Your task to perform on an android device: see creations saved in the google photos Image 0: 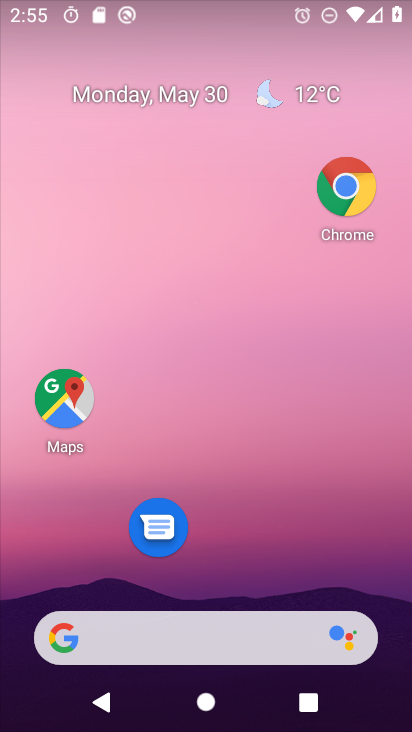
Step 0: drag from (196, 596) to (230, 191)
Your task to perform on an android device: see creations saved in the google photos Image 1: 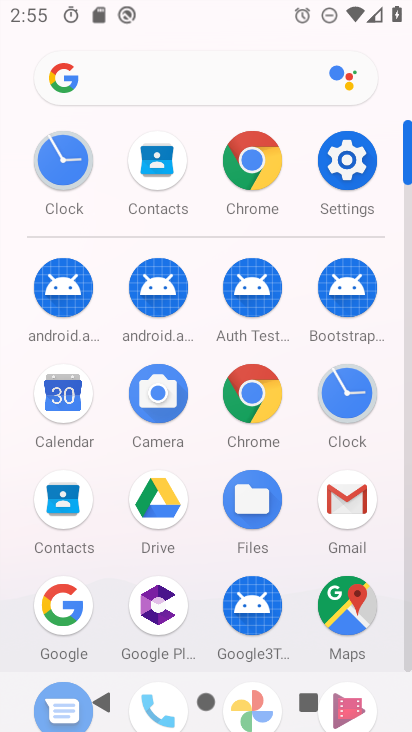
Step 1: drag from (196, 594) to (211, 289)
Your task to perform on an android device: see creations saved in the google photos Image 2: 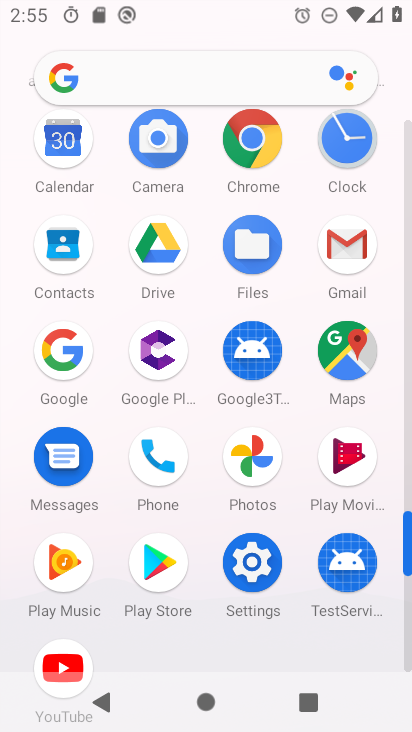
Step 2: click (234, 457)
Your task to perform on an android device: see creations saved in the google photos Image 3: 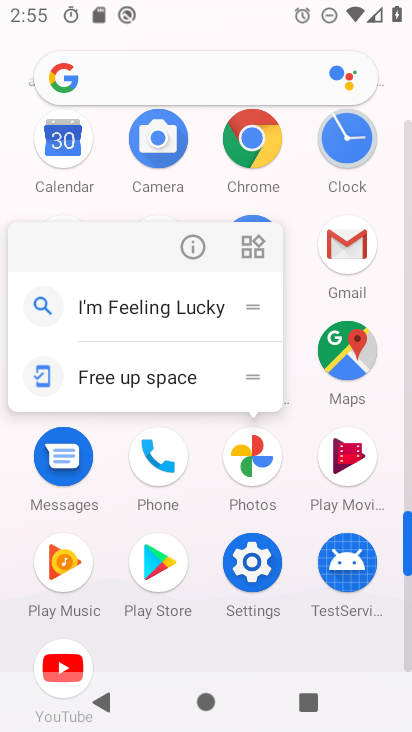
Step 3: click (200, 247)
Your task to perform on an android device: see creations saved in the google photos Image 4: 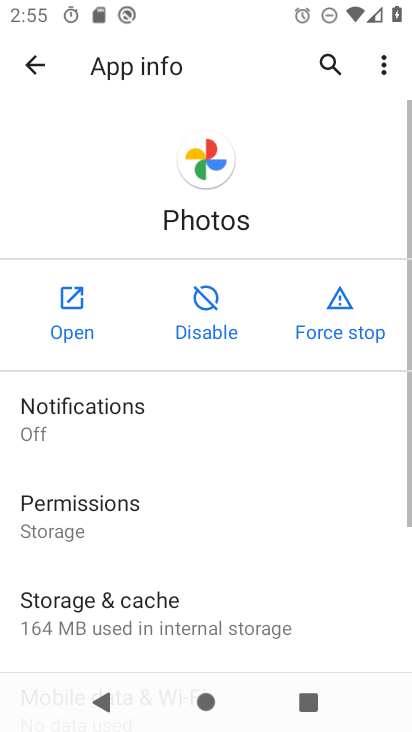
Step 4: click (102, 329)
Your task to perform on an android device: see creations saved in the google photos Image 5: 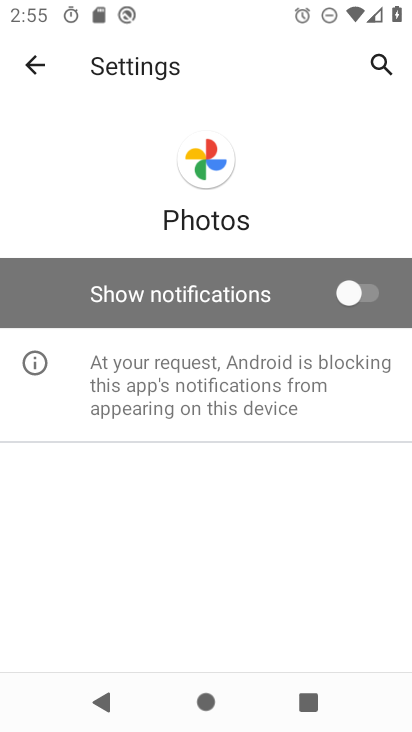
Step 5: click (35, 77)
Your task to perform on an android device: see creations saved in the google photos Image 6: 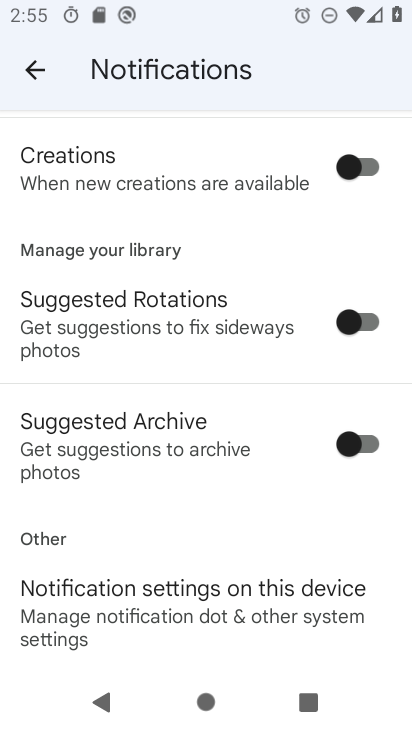
Step 6: drag from (129, 360) to (236, 727)
Your task to perform on an android device: see creations saved in the google photos Image 7: 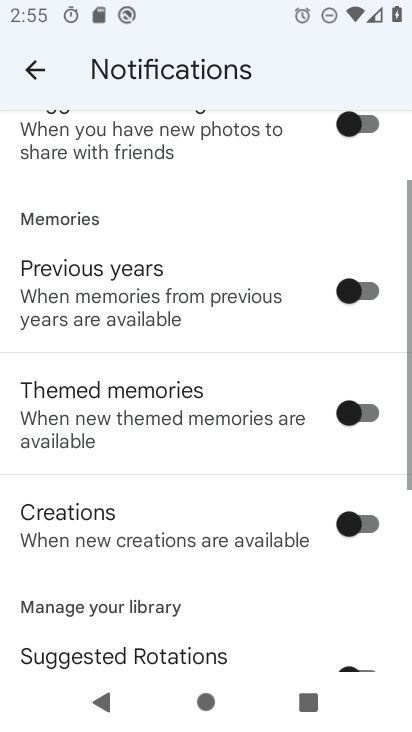
Step 7: click (25, 52)
Your task to perform on an android device: see creations saved in the google photos Image 8: 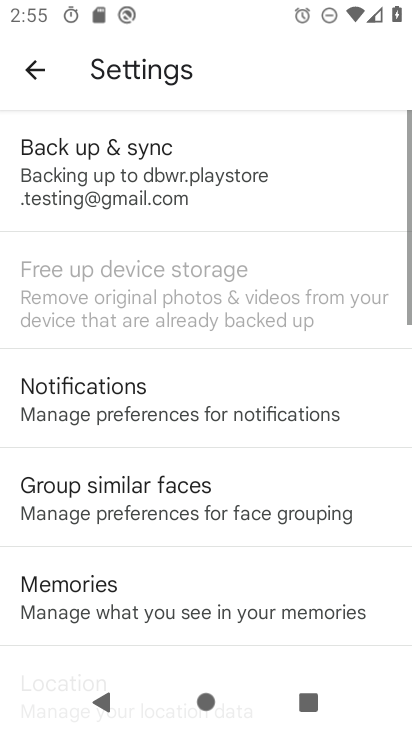
Step 8: click (22, 51)
Your task to perform on an android device: see creations saved in the google photos Image 9: 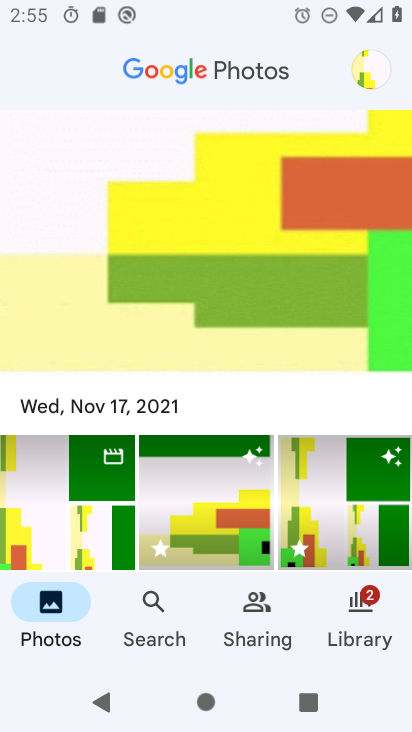
Step 9: click (155, 592)
Your task to perform on an android device: see creations saved in the google photos Image 10: 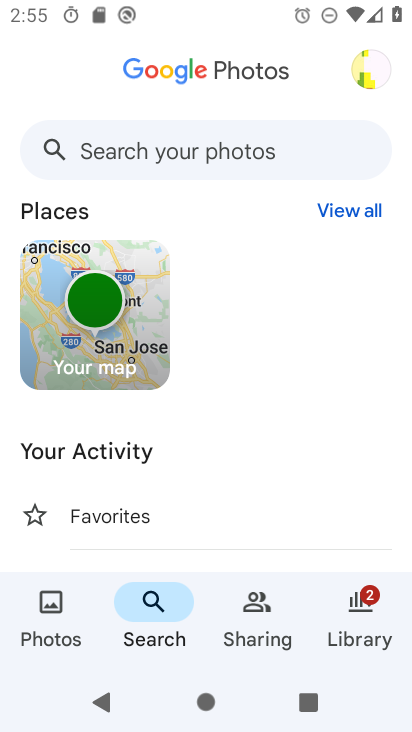
Step 10: drag from (202, 502) to (312, 34)
Your task to perform on an android device: see creations saved in the google photos Image 11: 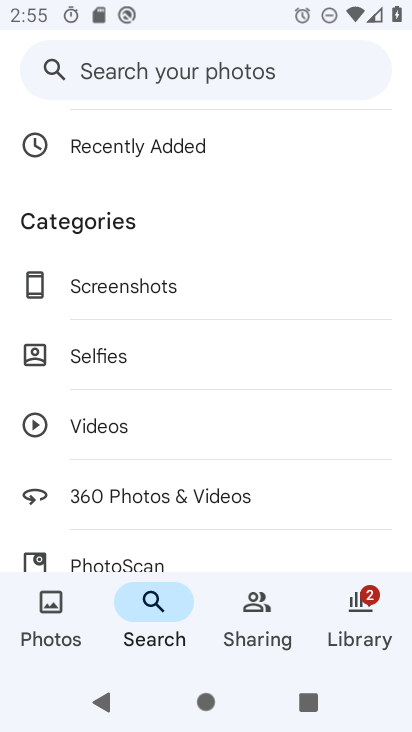
Step 11: drag from (148, 523) to (178, 312)
Your task to perform on an android device: see creations saved in the google photos Image 12: 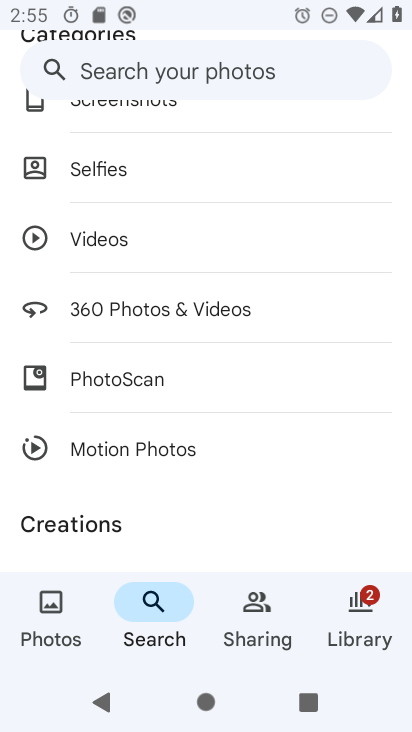
Step 12: drag from (105, 517) to (244, 158)
Your task to perform on an android device: see creations saved in the google photos Image 13: 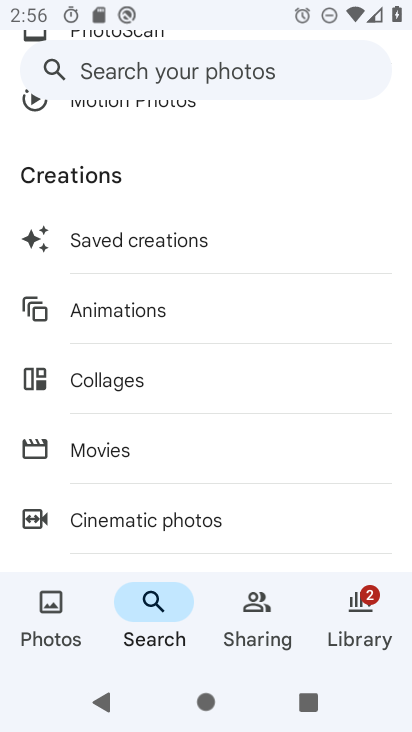
Step 13: drag from (145, 476) to (212, 212)
Your task to perform on an android device: see creations saved in the google photos Image 14: 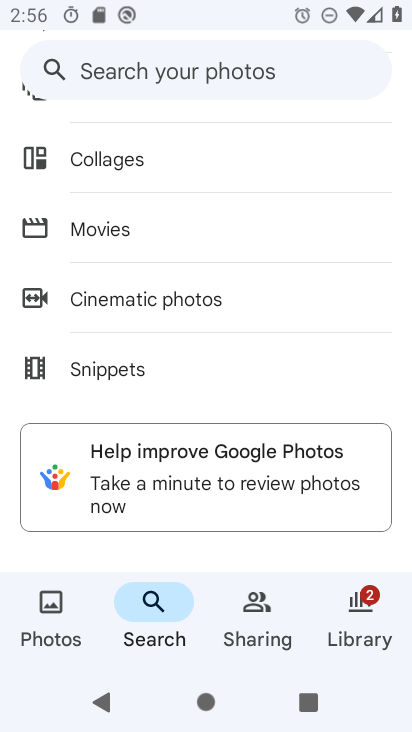
Step 14: drag from (173, 252) to (192, 545)
Your task to perform on an android device: see creations saved in the google photos Image 15: 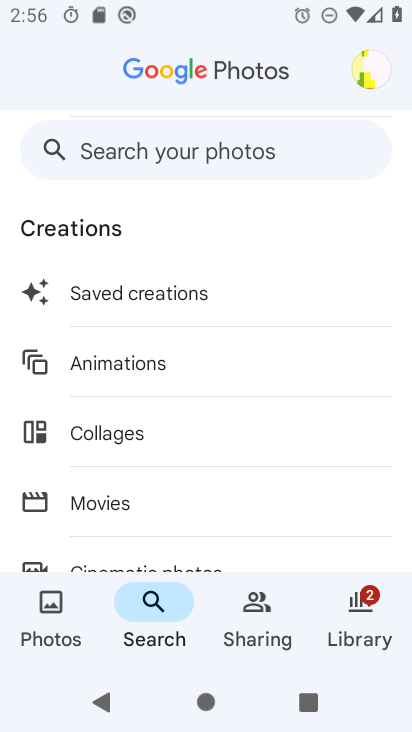
Step 15: click (132, 289)
Your task to perform on an android device: see creations saved in the google photos Image 16: 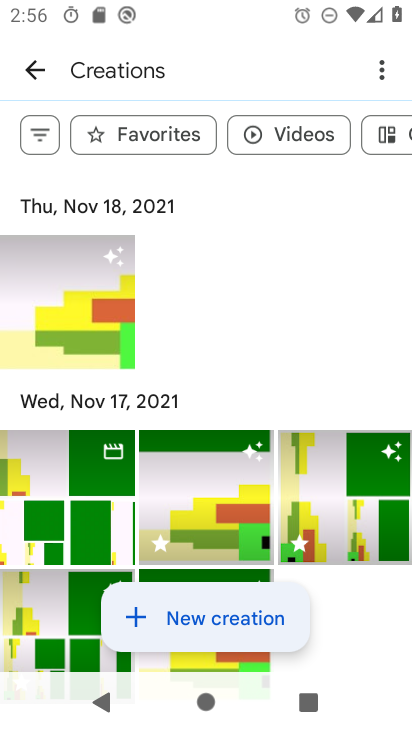
Step 16: click (65, 506)
Your task to perform on an android device: see creations saved in the google photos Image 17: 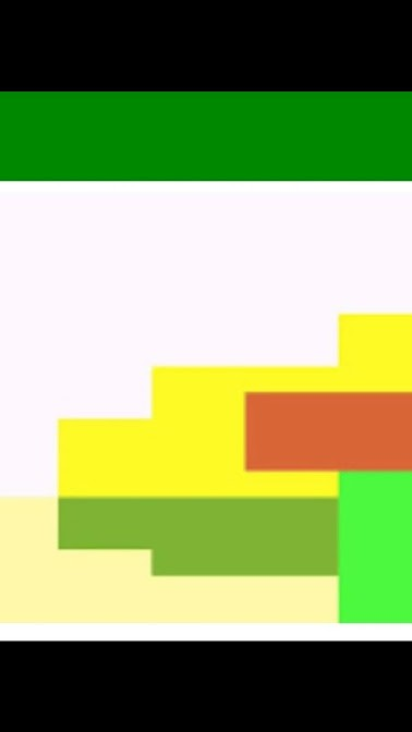
Step 17: task complete